Your task to perform on an android device: turn off sleep mode Image 0: 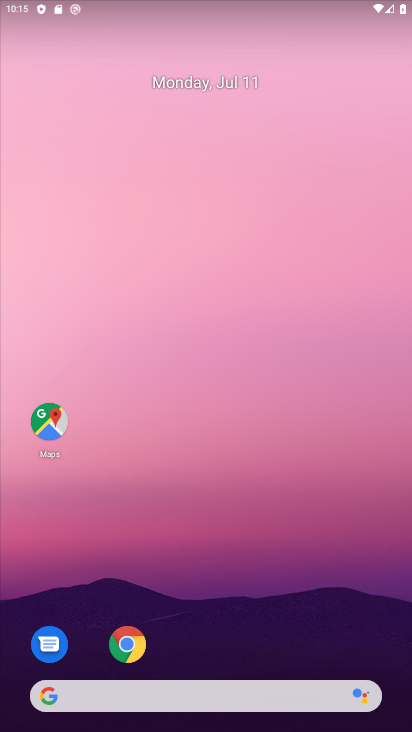
Step 0: drag from (189, 524) to (161, 101)
Your task to perform on an android device: turn off sleep mode Image 1: 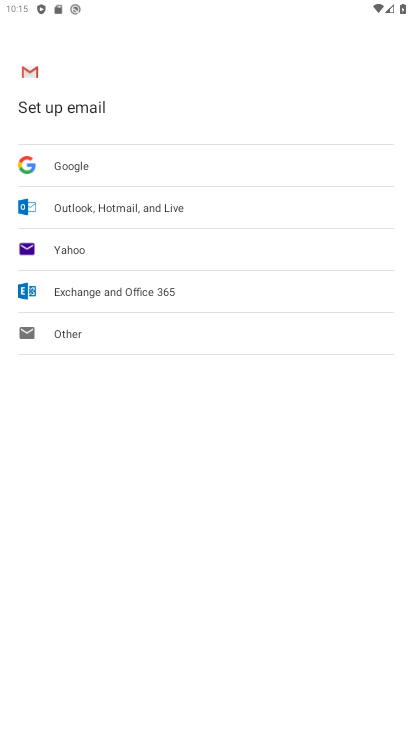
Step 1: press home button
Your task to perform on an android device: turn off sleep mode Image 2: 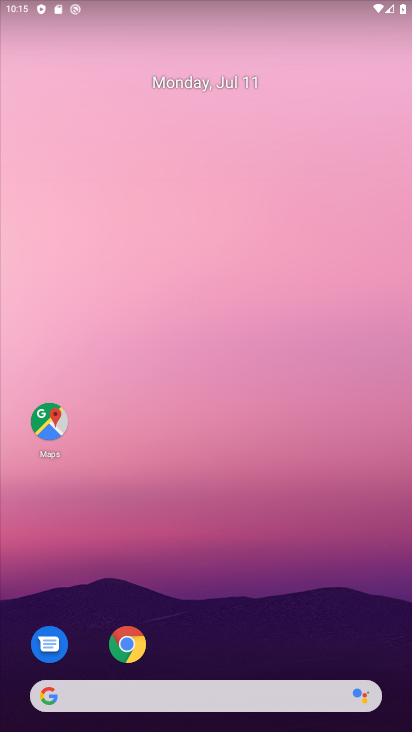
Step 2: drag from (198, 669) to (263, 1)
Your task to perform on an android device: turn off sleep mode Image 3: 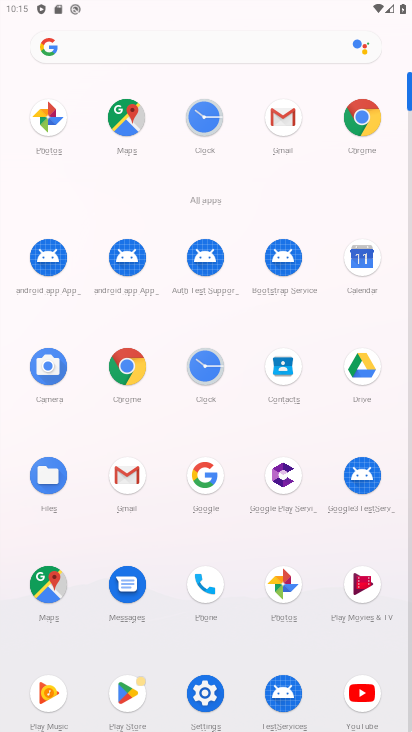
Step 3: click (201, 690)
Your task to perform on an android device: turn off sleep mode Image 4: 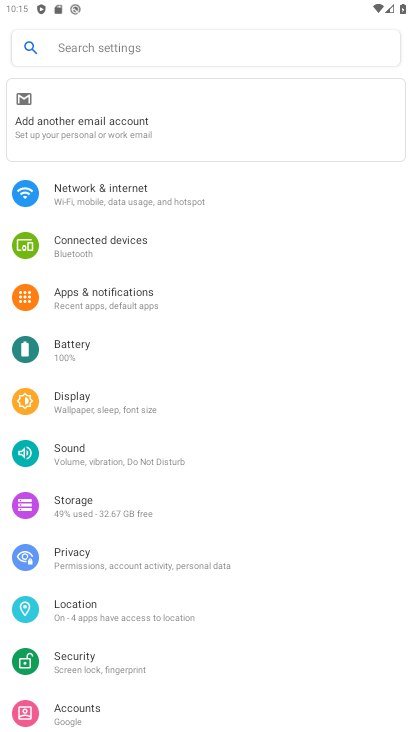
Step 4: click (98, 397)
Your task to perform on an android device: turn off sleep mode Image 5: 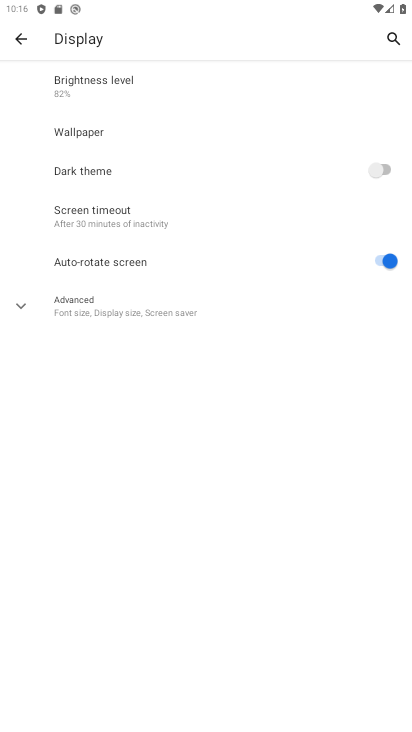
Step 5: task complete